Your task to perform on an android device: Find coffee shops on Maps Image 0: 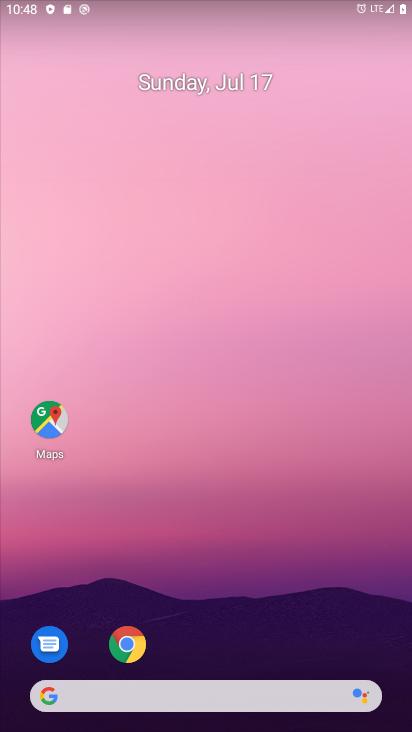
Step 0: drag from (278, 571) to (311, 18)
Your task to perform on an android device: Find coffee shops on Maps Image 1: 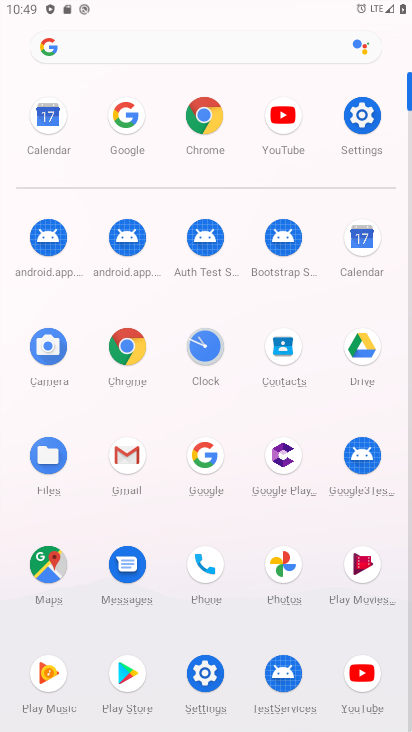
Step 1: click (52, 568)
Your task to perform on an android device: Find coffee shops on Maps Image 2: 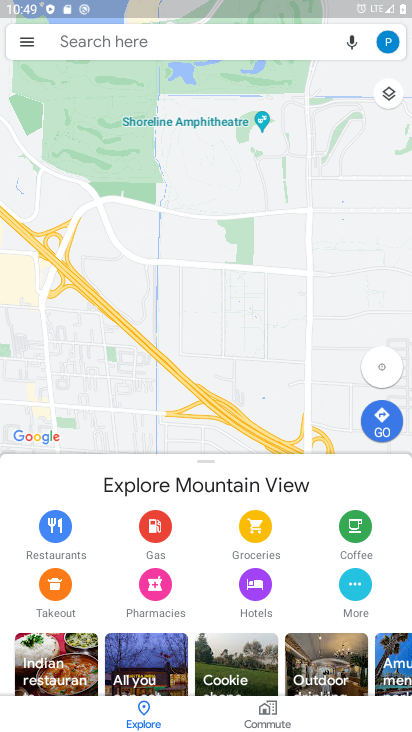
Step 2: click (129, 42)
Your task to perform on an android device: Find coffee shops on Maps Image 3: 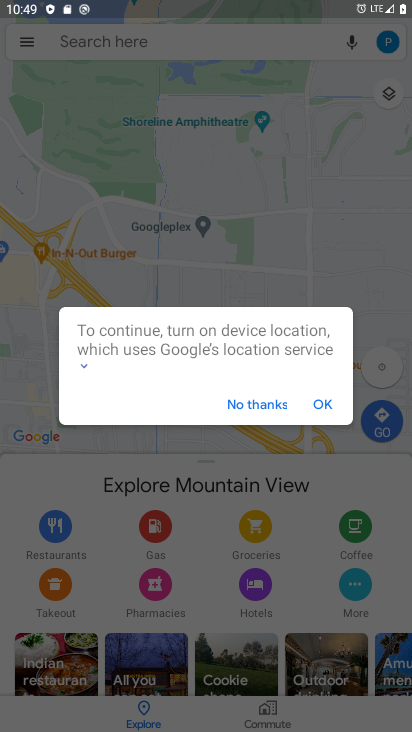
Step 3: click (261, 400)
Your task to perform on an android device: Find coffee shops on Maps Image 4: 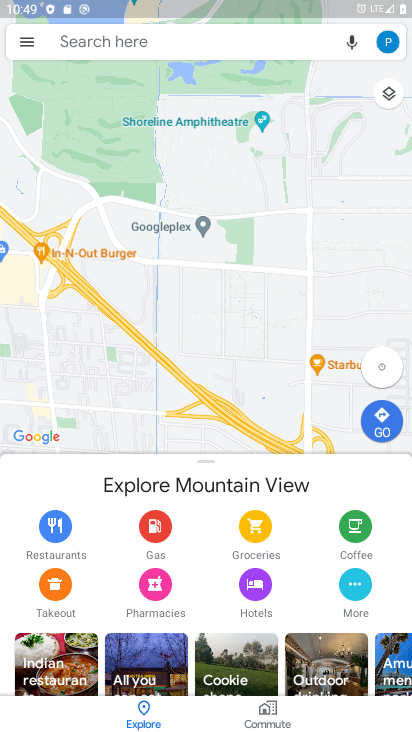
Step 4: click (162, 38)
Your task to perform on an android device: Find coffee shops on Maps Image 5: 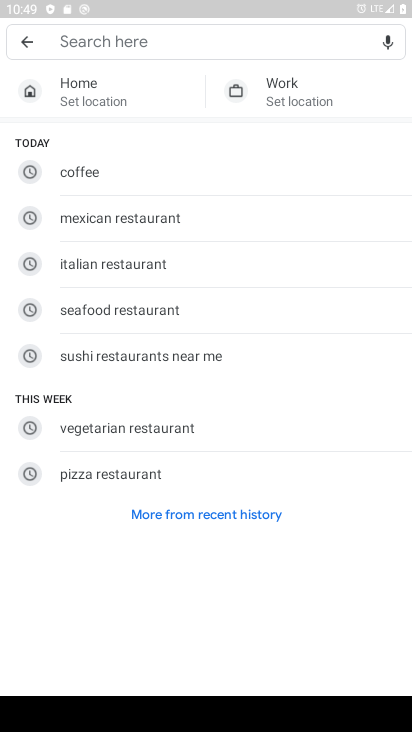
Step 5: click (84, 182)
Your task to perform on an android device: Find coffee shops on Maps Image 6: 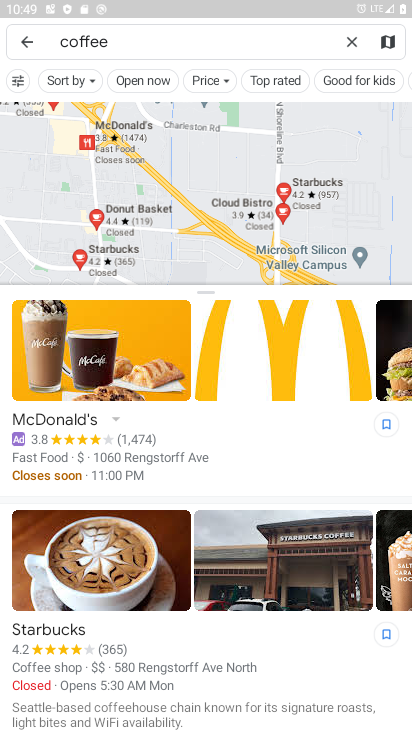
Step 6: task complete